Your task to perform on an android device: install app "Google Docs" Image 0: 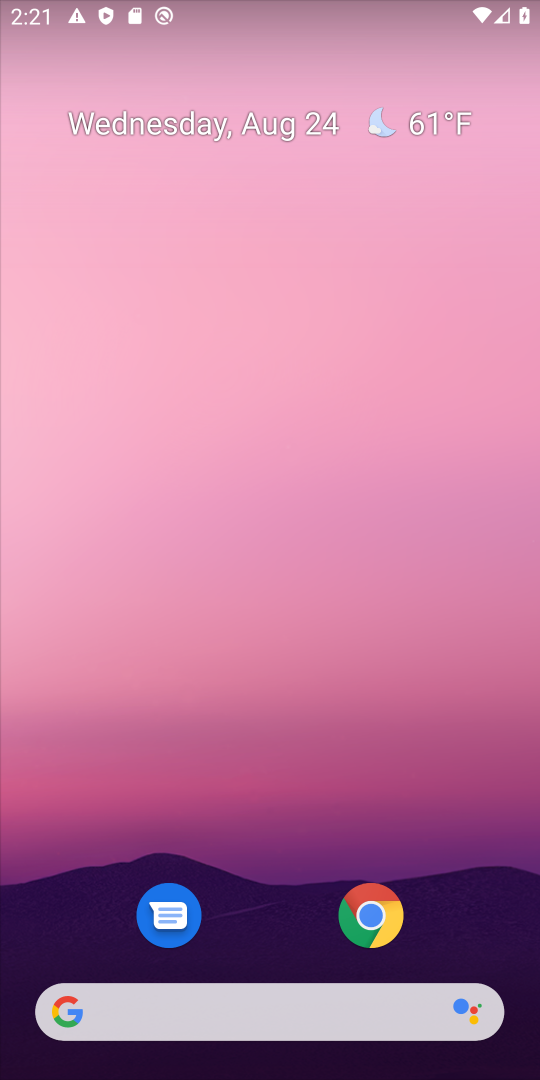
Step 0: drag from (222, 849) to (214, 172)
Your task to perform on an android device: install app "Google Docs" Image 1: 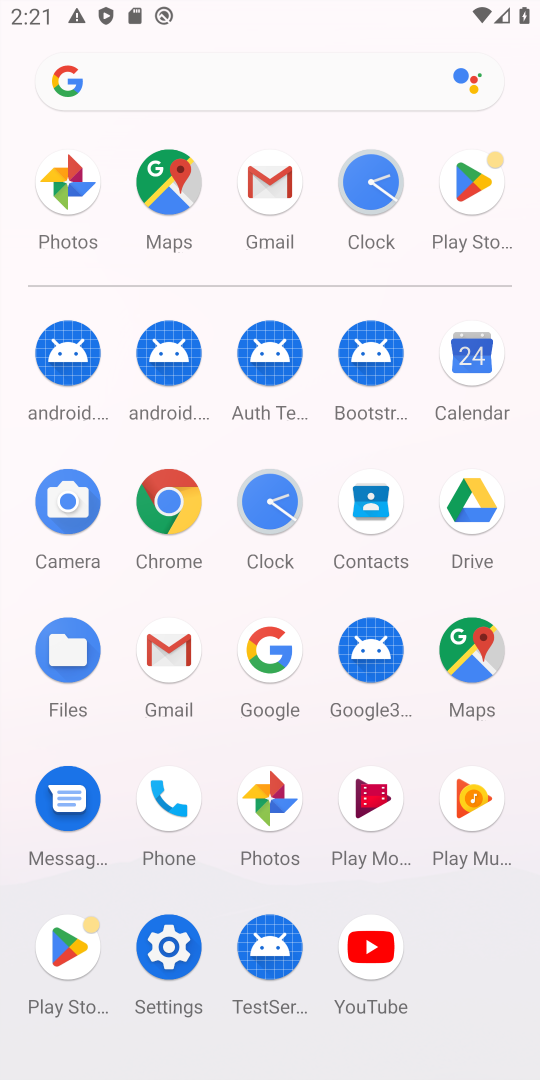
Step 1: click (463, 192)
Your task to perform on an android device: install app "Google Docs" Image 2: 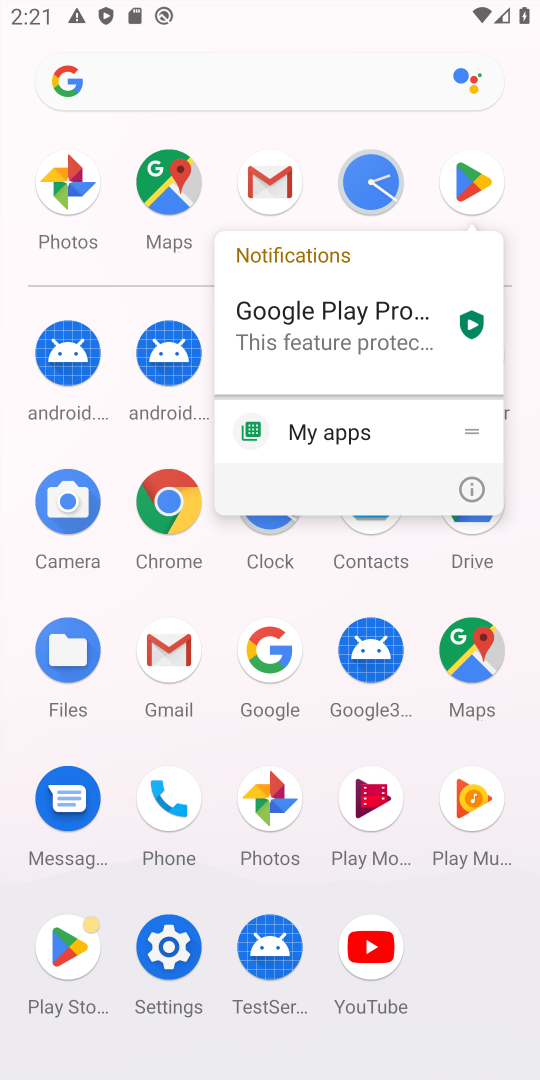
Step 2: click (463, 192)
Your task to perform on an android device: install app "Google Docs" Image 3: 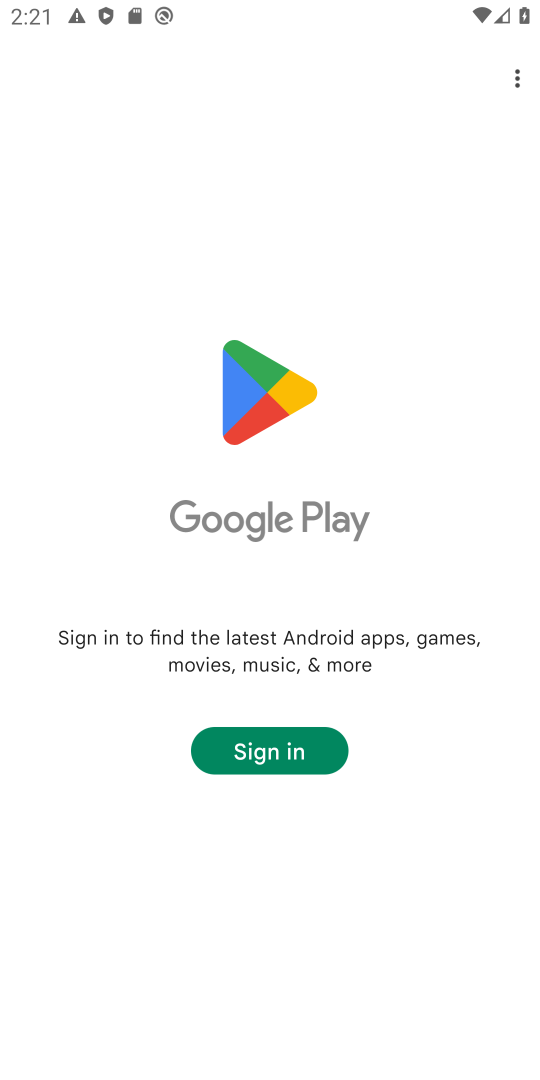
Step 3: task complete